Your task to perform on an android device: add a contact Image 0: 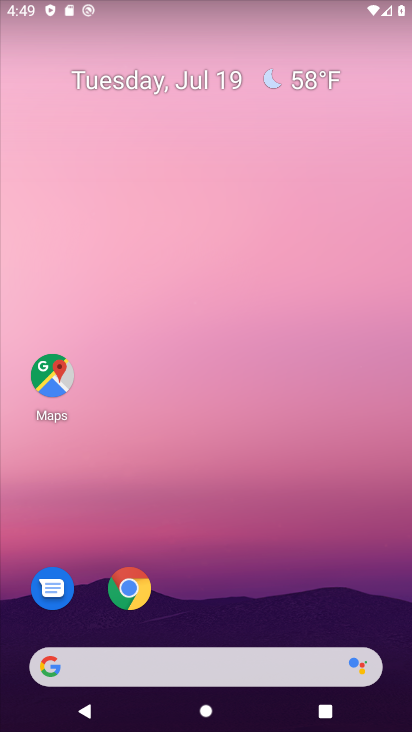
Step 0: drag from (282, 593) to (163, 83)
Your task to perform on an android device: add a contact Image 1: 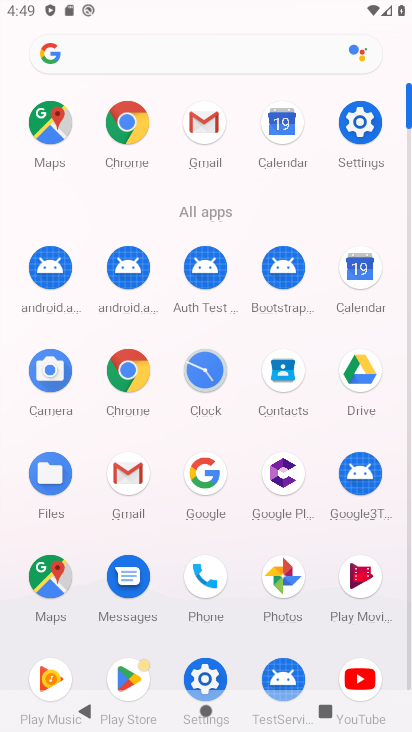
Step 1: click (281, 371)
Your task to perform on an android device: add a contact Image 2: 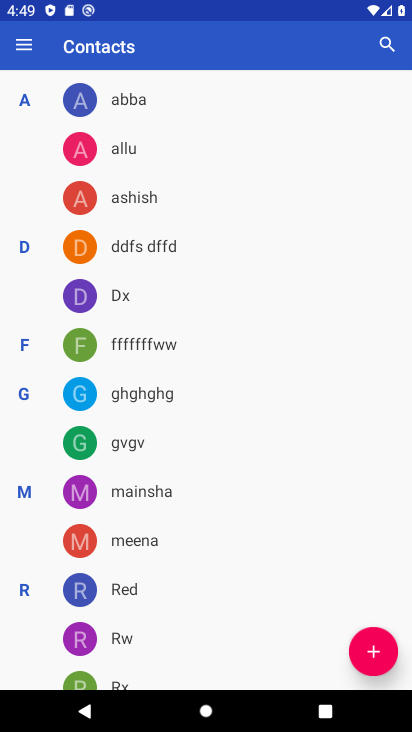
Step 2: click (364, 649)
Your task to perform on an android device: add a contact Image 3: 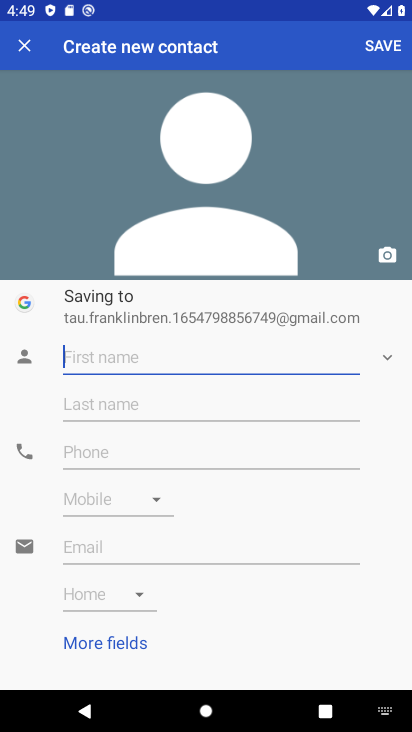
Step 3: type "gopl"
Your task to perform on an android device: add a contact Image 4: 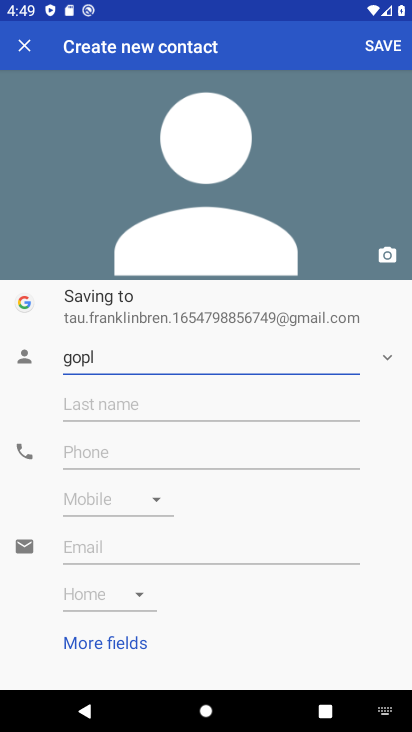
Step 4: click (372, 44)
Your task to perform on an android device: add a contact Image 5: 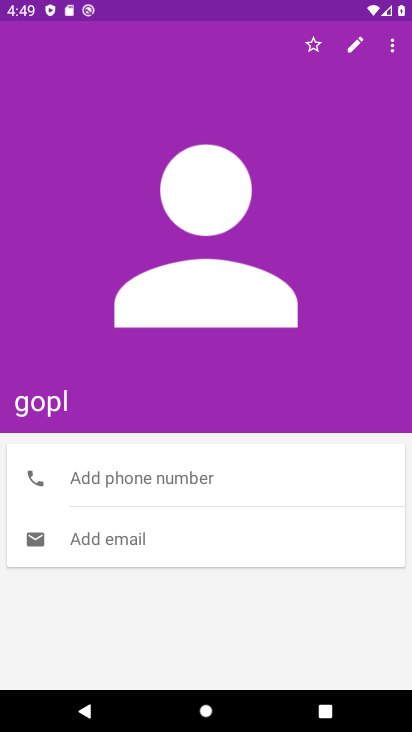
Step 5: task complete